Your task to perform on an android device: change text size in settings app Image 0: 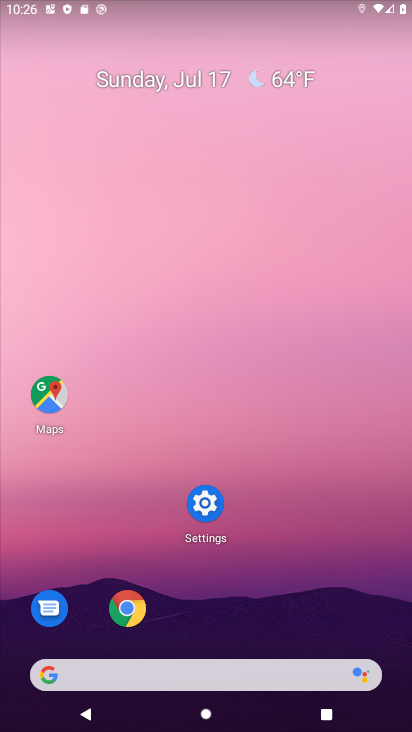
Step 0: click (193, 514)
Your task to perform on an android device: change text size in settings app Image 1: 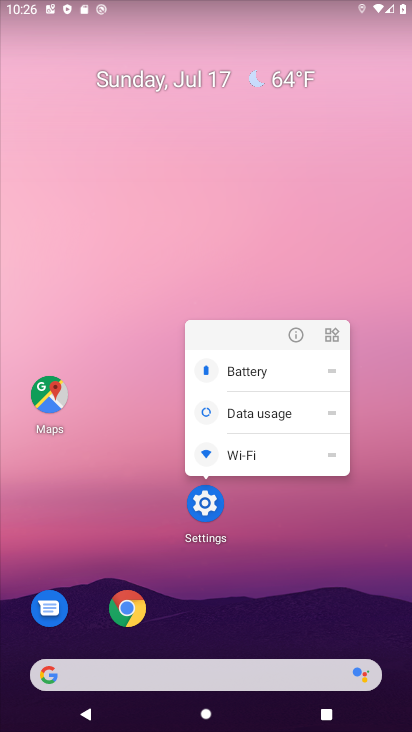
Step 1: click (193, 514)
Your task to perform on an android device: change text size in settings app Image 2: 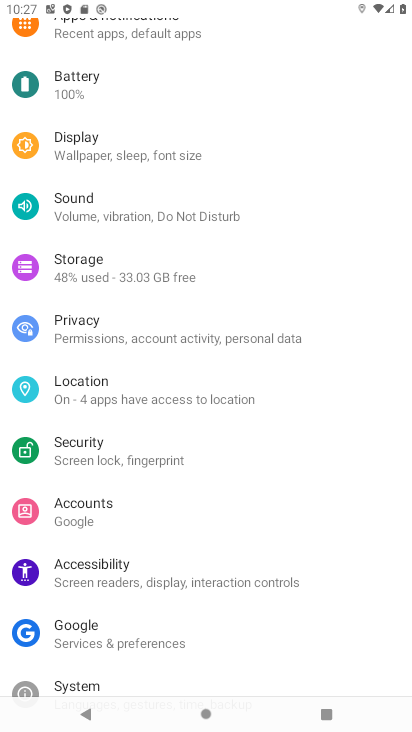
Step 2: click (89, 148)
Your task to perform on an android device: change text size in settings app Image 3: 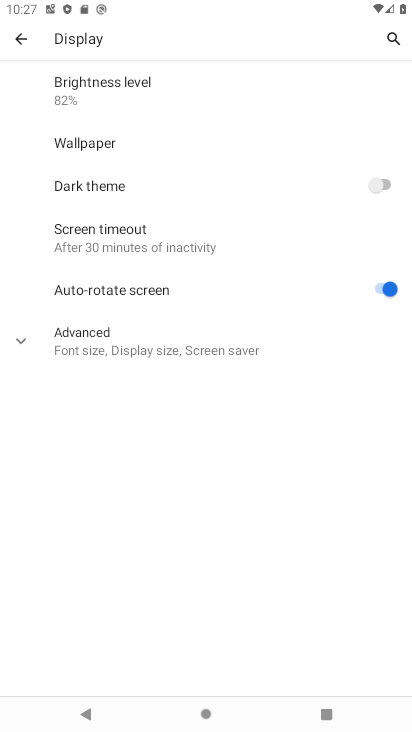
Step 3: click (32, 337)
Your task to perform on an android device: change text size in settings app Image 4: 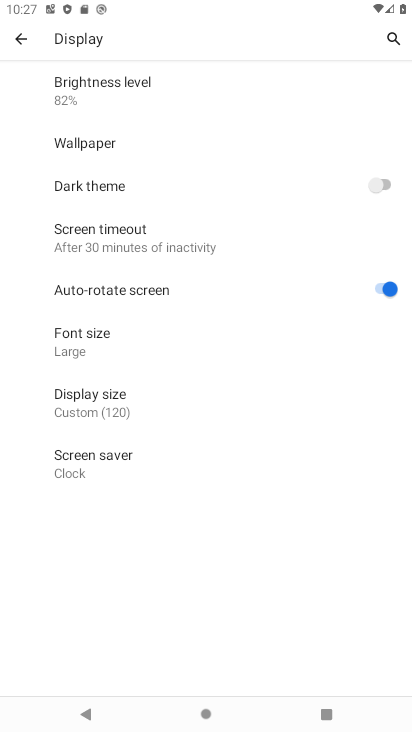
Step 4: click (76, 332)
Your task to perform on an android device: change text size in settings app Image 5: 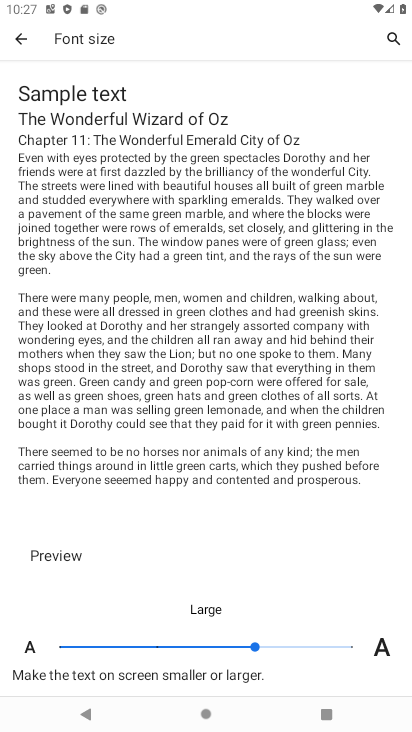
Step 5: click (347, 644)
Your task to perform on an android device: change text size in settings app Image 6: 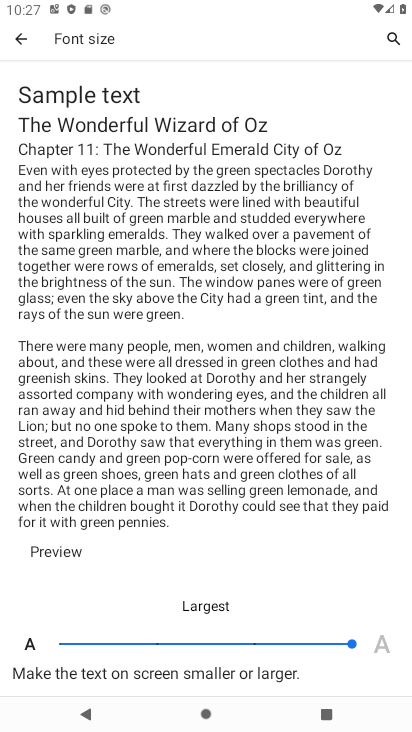
Step 6: task complete